Your task to perform on an android device: open the mobile data screen to see how much data has been used Image 0: 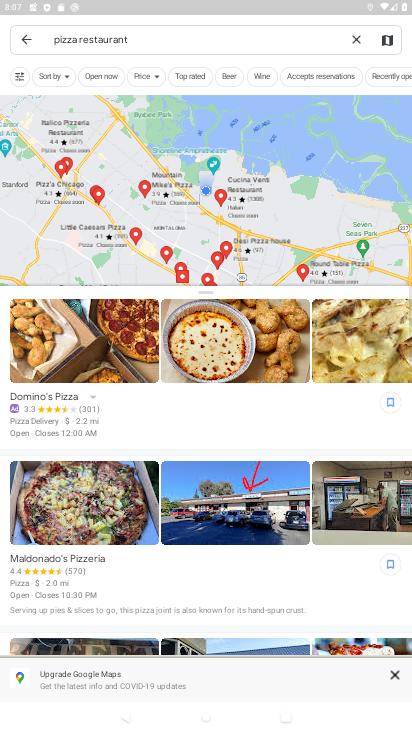
Step 0: press home button
Your task to perform on an android device: open the mobile data screen to see how much data has been used Image 1: 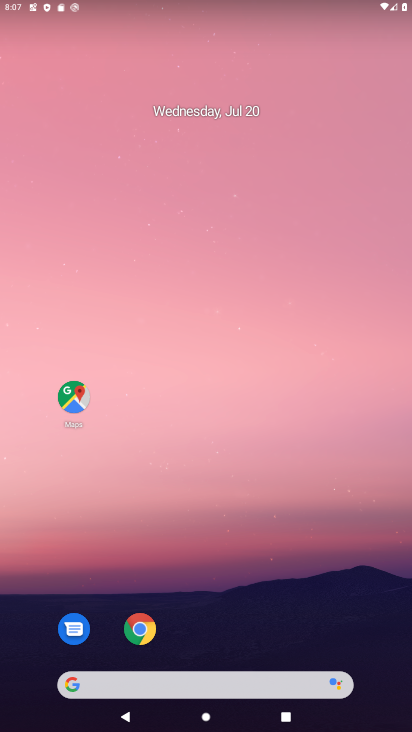
Step 1: drag from (236, 587) to (188, 141)
Your task to perform on an android device: open the mobile data screen to see how much data has been used Image 2: 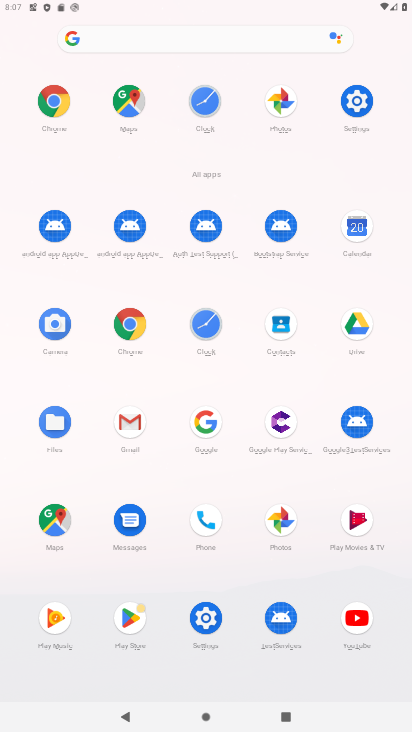
Step 2: click (361, 114)
Your task to perform on an android device: open the mobile data screen to see how much data has been used Image 3: 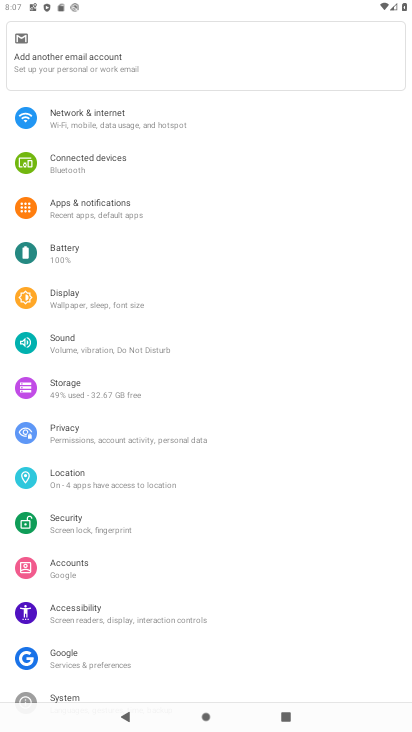
Step 3: click (177, 128)
Your task to perform on an android device: open the mobile data screen to see how much data has been used Image 4: 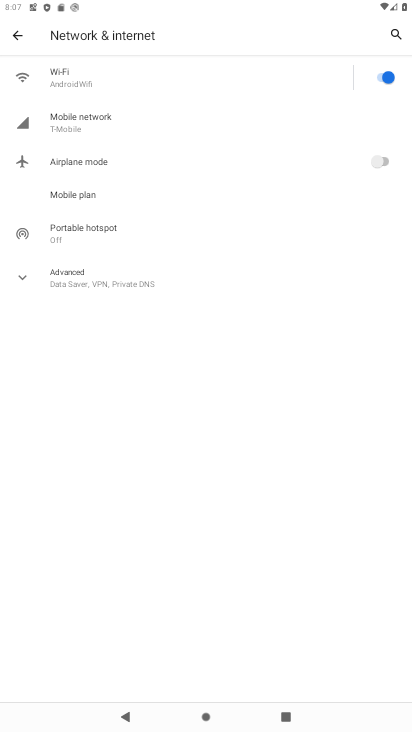
Step 4: click (127, 124)
Your task to perform on an android device: open the mobile data screen to see how much data has been used Image 5: 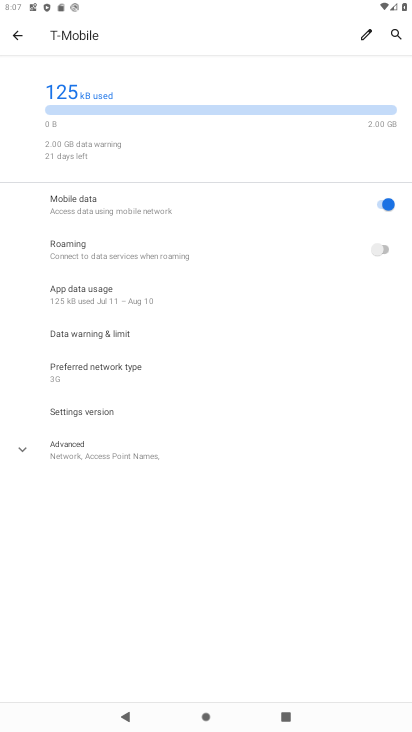
Step 5: click (84, 297)
Your task to perform on an android device: open the mobile data screen to see how much data has been used Image 6: 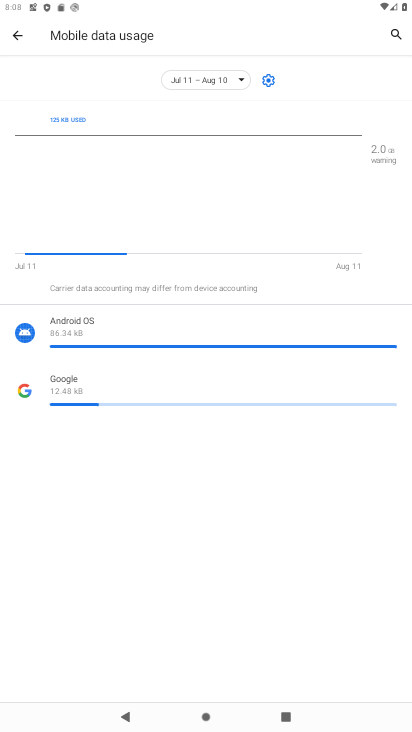
Step 6: task complete